Your task to perform on an android device: check out phone information Image 0: 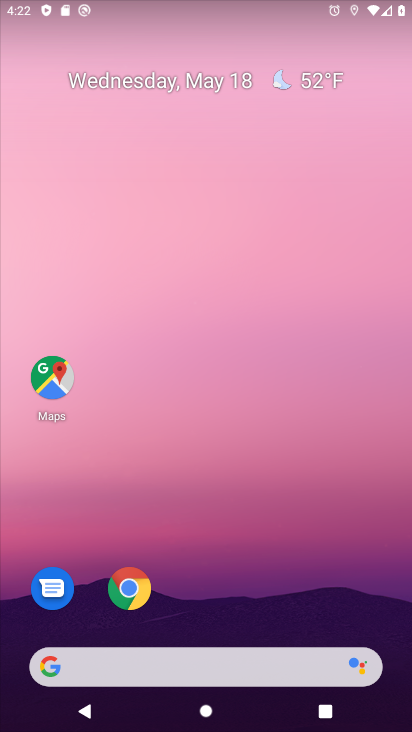
Step 0: drag from (263, 572) to (300, 165)
Your task to perform on an android device: check out phone information Image 1: 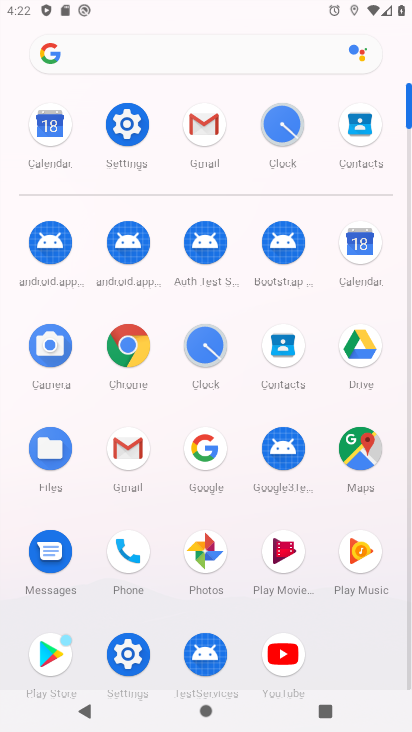
Step 1: click (138, 549)
Your task to perform on an android device: check out phone information Image 2: 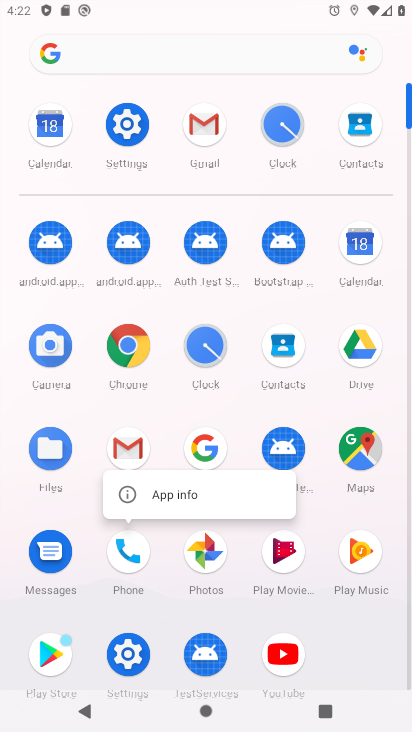
Step 2: click (191, 493)
Your task to perform on an android device: check out phone information Image 3: 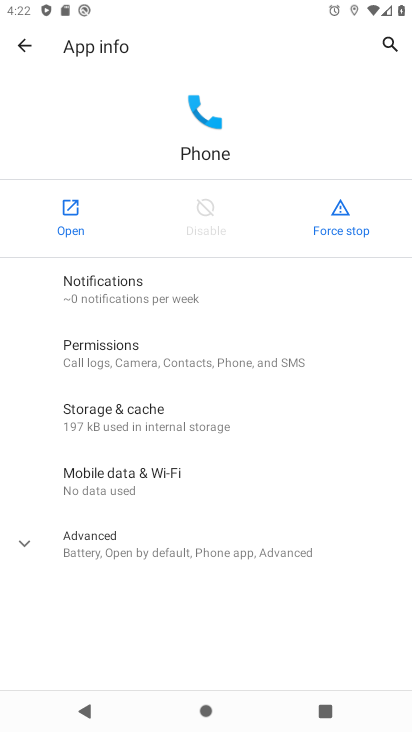
Step 3: task complete